Your task to perform on an android device: Go to sound settings Image 0: 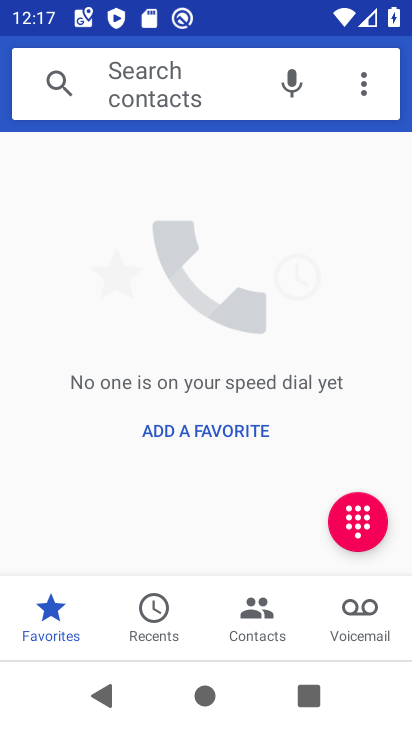
Step 0: press back button
Your task to perform on an android device: Go to sound settings Image 1: 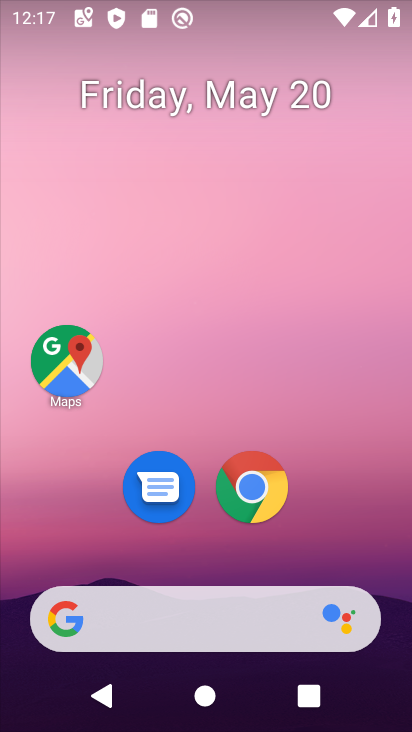
Step 1: drag from (182, 549) to (274, 56)
Your task to perform on an android device: Go to sound settings Image 2: 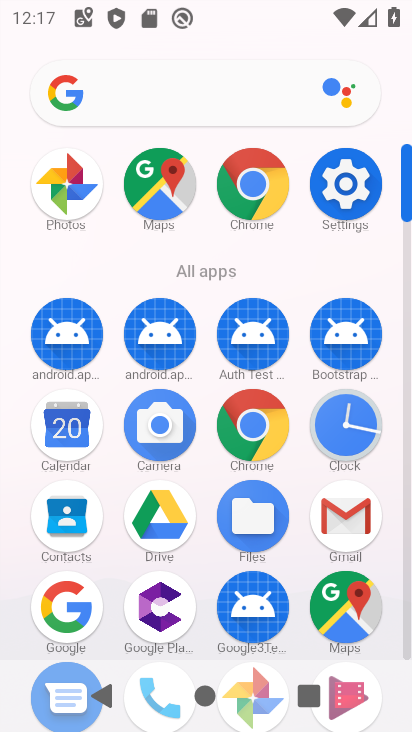
Step 2: click (344, 191)
Your task to perform on an android device: Go to sound settings Image 3: 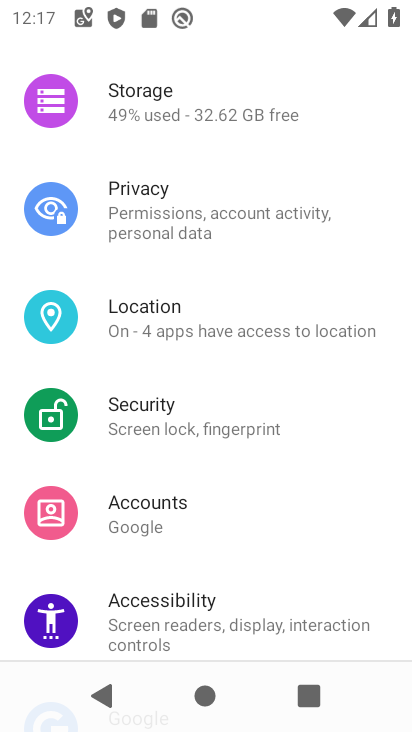
Step 3: drag from (183, 555) to (296, 63)
Your task to perform on an android device: Go to sound settings Image 4: 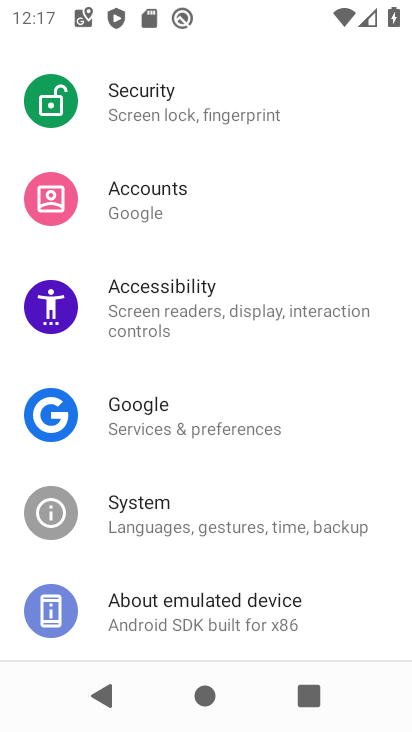
Step 4: drag from (180, 111) to (146, 654)
Your task to perform on an android device: Go to sound settings Image 5: 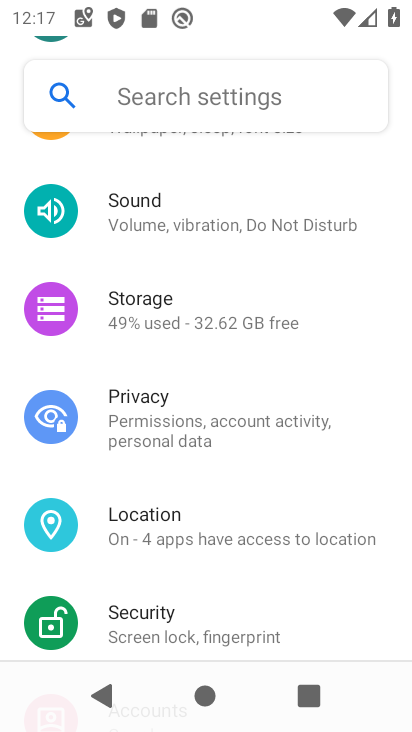
Step 5: click (152, 226)
Your task to perform on an android device: Go to sound settings Image 6: 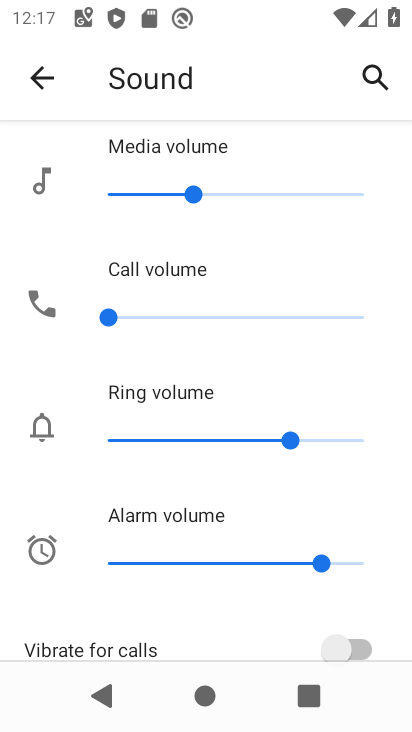
Step 6: task complete